Your task to perform on an android device: Open internet settings Image 0: 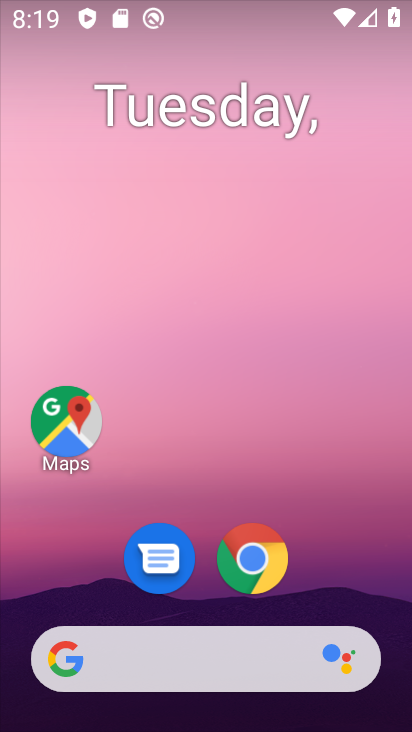
Step 0: drag from (203, 600) to (224, 290)
Your task to perform on an android device: Open internet settings Image 1: 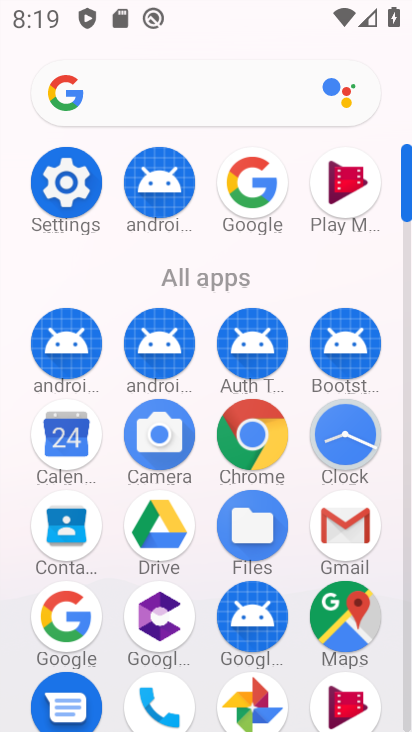
Step 1: click (78, 174)
Your task to perform on an android device: Open internet settings Image 2: 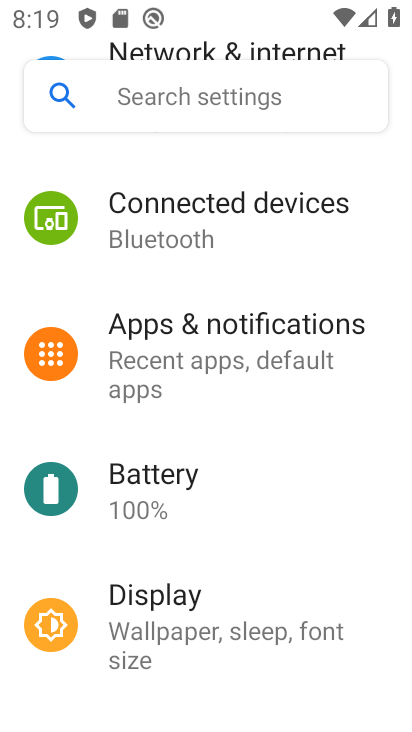
Step 2: drag from (213, 237) to (235, 583)
Your task to perform on an android device: Open internet settings Image 3: 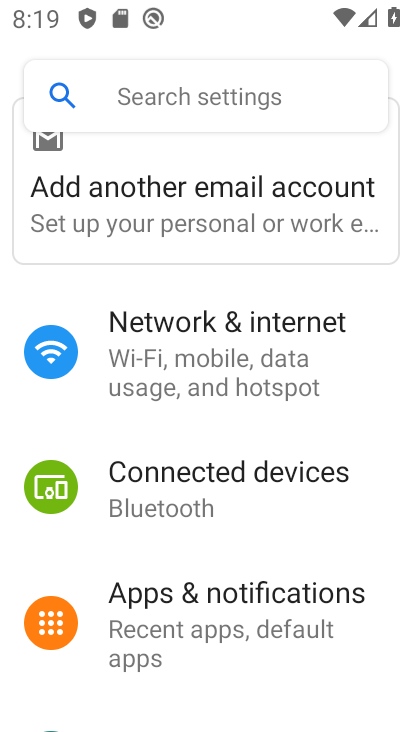
Step 3: click (220, 329)
Your task to perform on an android device: Open internet settings Image 4: 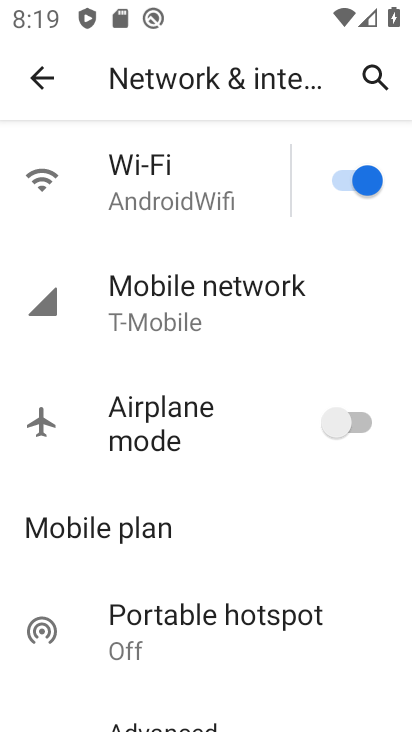
Step 4: drag from (213, 606) to (224, 273)
Your task to perform on an android device: Open internet settings Image 5: 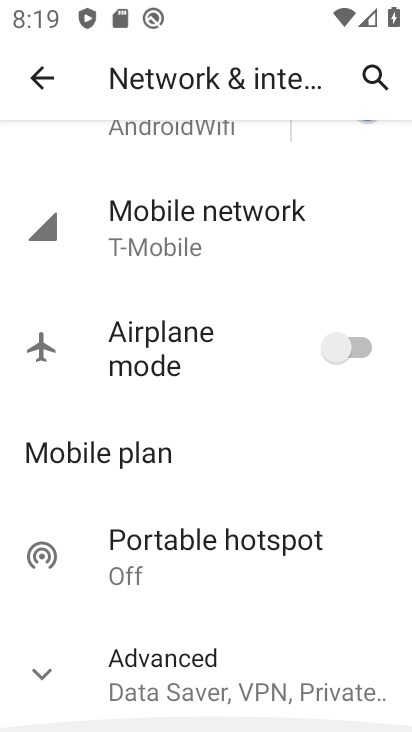
Step 5: click (196, 230)
Your task to perform on an android device: Open internet settings Image 6: 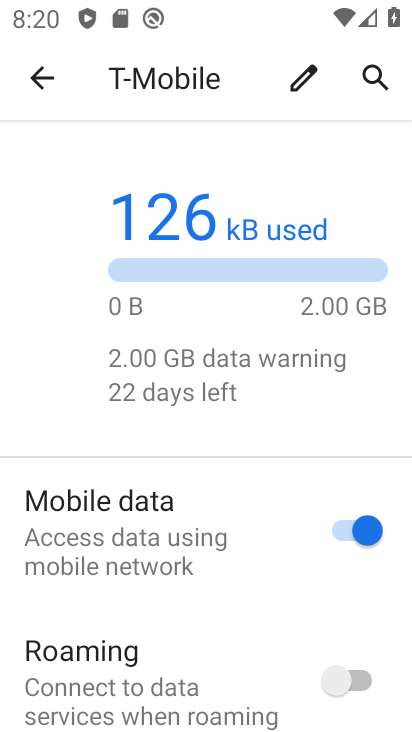
Step 6: task complete